Your task to perform on an android device: find photos in the google photos app Image 0: 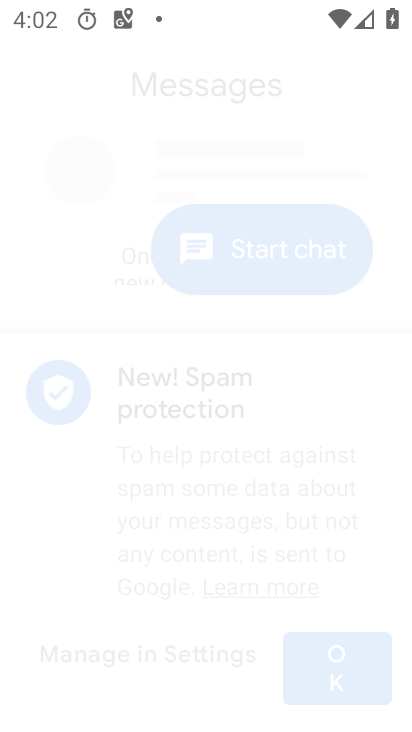
Step 0: drag from (226, 719) to (192, 217)
Your task to perform on an android device: find photos in the google photos app Image 1: 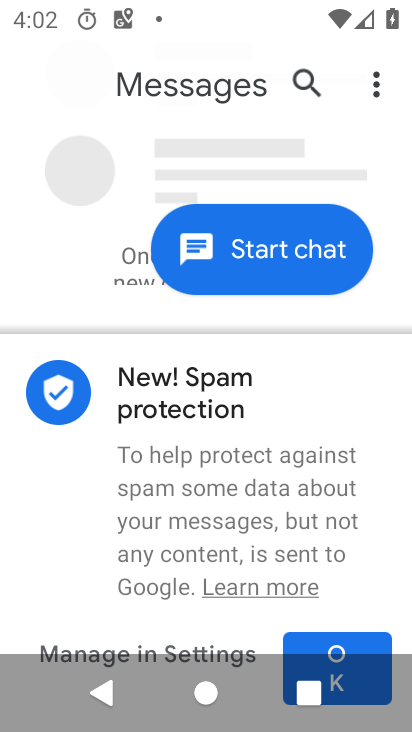
Step 1: press home button
Your task to perform on an android device: find photos in the google photos app Image 2: 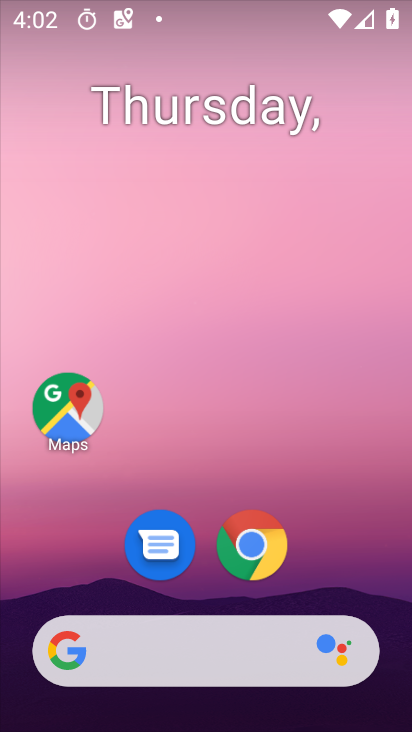
Step 2: drag from (248, 720) to (201, 196)
Your task to perform on an android device: find photos in the google photos app Image 3: 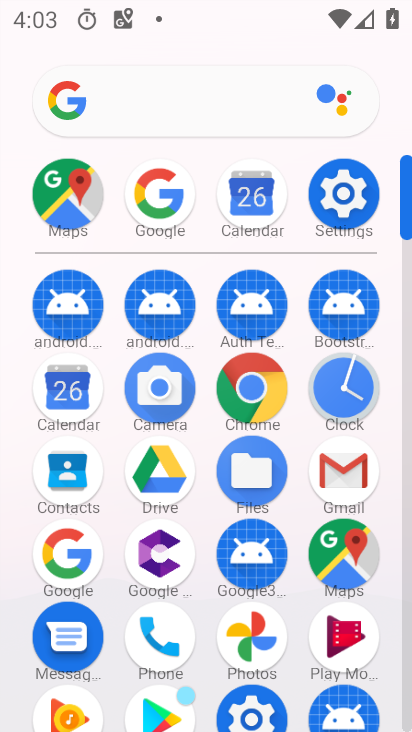
Step 3: click (257, 632)
Your task to perform on an android device: find photos in the google photos app Image 4: 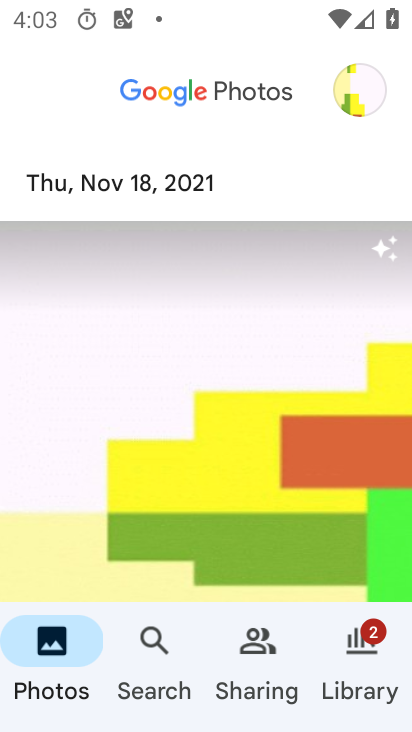
Step 4: drag from (219, 565) to (205, 219)
Your task to perform on an android device: find photos in the google photos app Image 5: 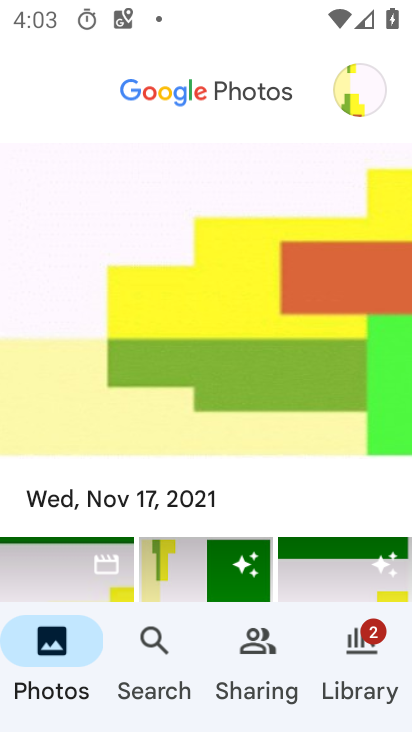
Step 5: drag from (183, 530) to (195, 249)
Your task to perform on an android device: find photos in the google photos app Image 6: 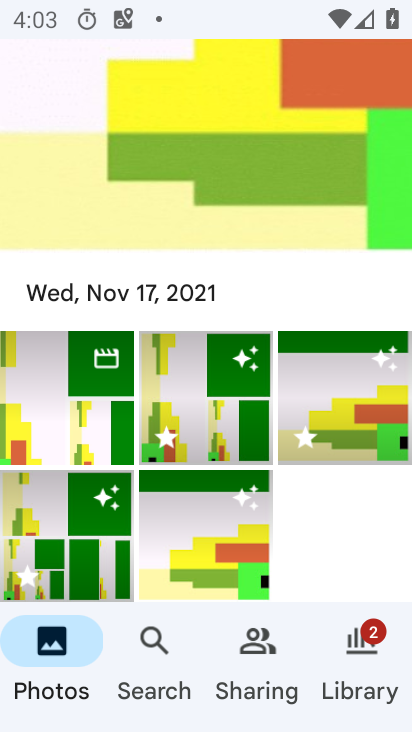
Step 6: click (307, 424)
Your task to perform on an android device: find photos in the google photos app Image 7: 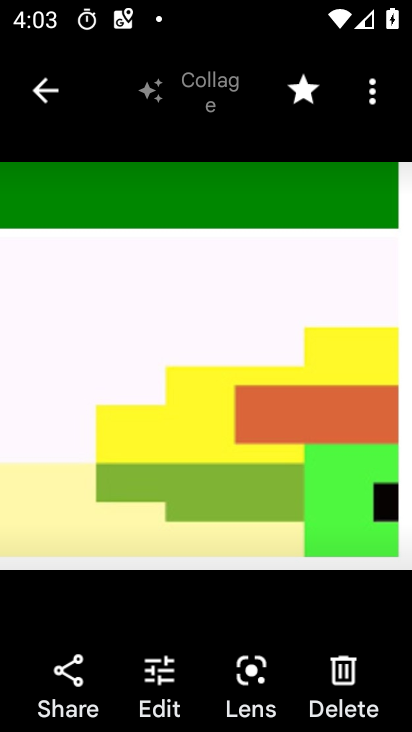
Step 7: task complete